Your task to perform on an android device: clear all cookies in the chrome app Image 0: 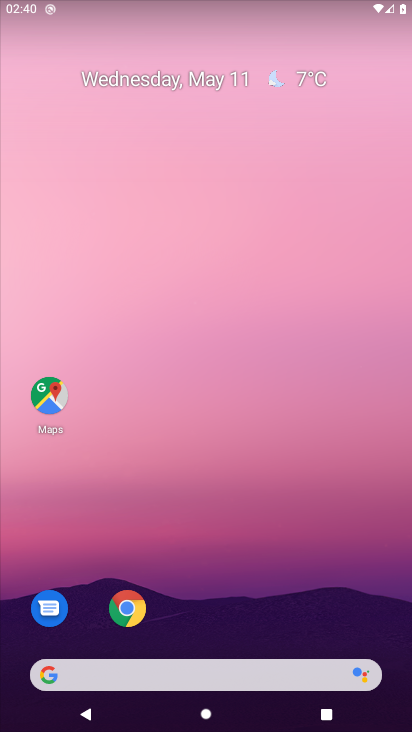
Step 0: click (117, 612)
Your task to perform on an android device: clear all cookies in the chrome app Image 1: 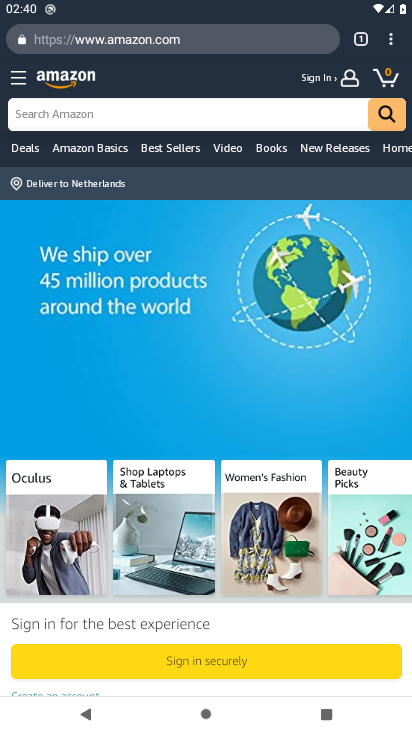
Step 1: click (395, 37)
Your task to perform on an android device: clear all cookies in the chrome app Image 2: 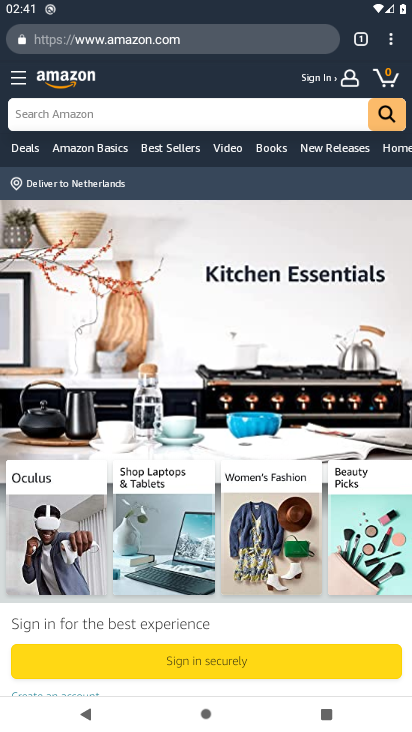
Step 2: click (394, 44)
Your task to perform on an android device: clear all cookies in the chrome app Image 3: 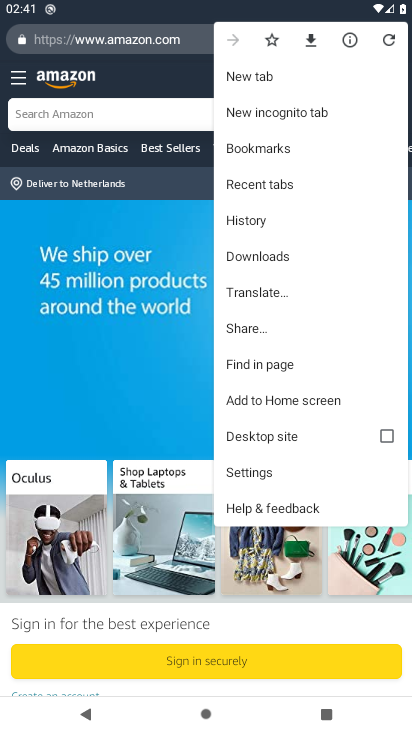
Step 3: click (269, 223)
Your task to perform on an android device: clear all cookies in the chrome app Image 4: 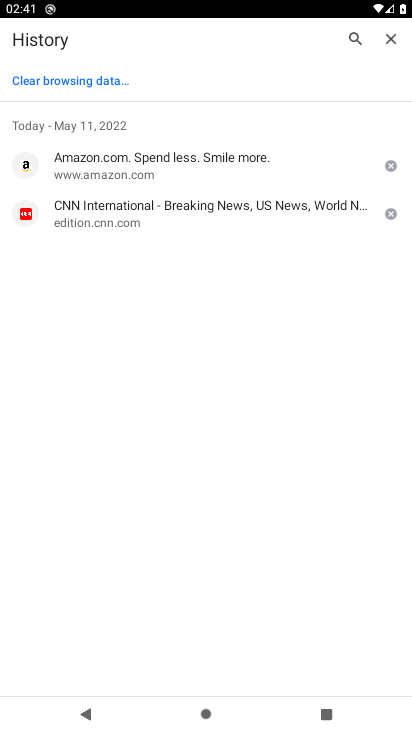
Step 4: click (43, 75)
Your task to perform on an android device: clear all cookies in the chrome app Image 5: 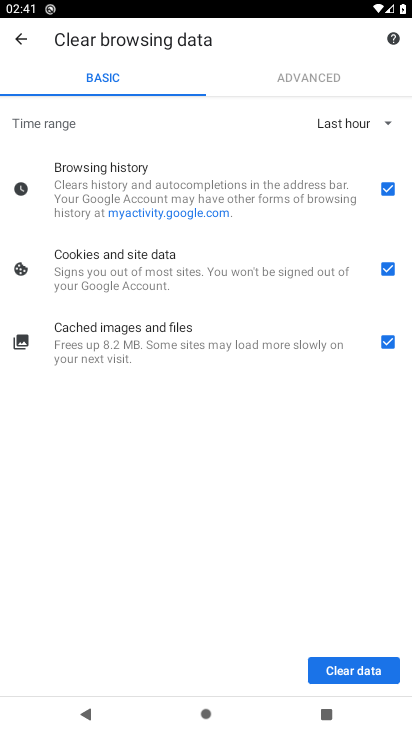
Step 5: click (384, 188)
Your task to perform on an android device: clear all cookies in the chrome app Image 6: 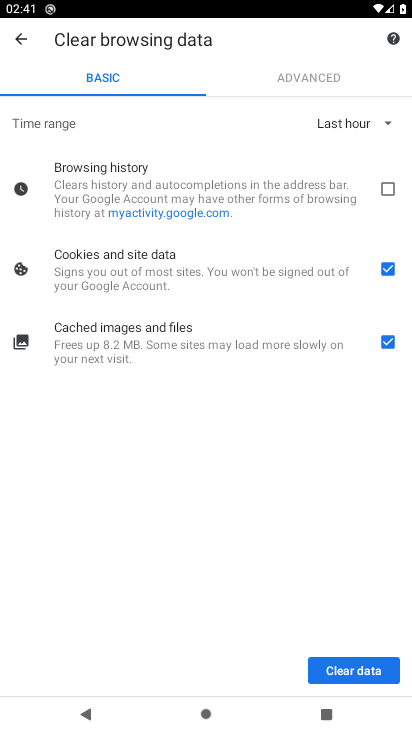
Step 6: click (386, 341)
Your task to perform on an android device: clear all cookies in the chrome app Image 7: 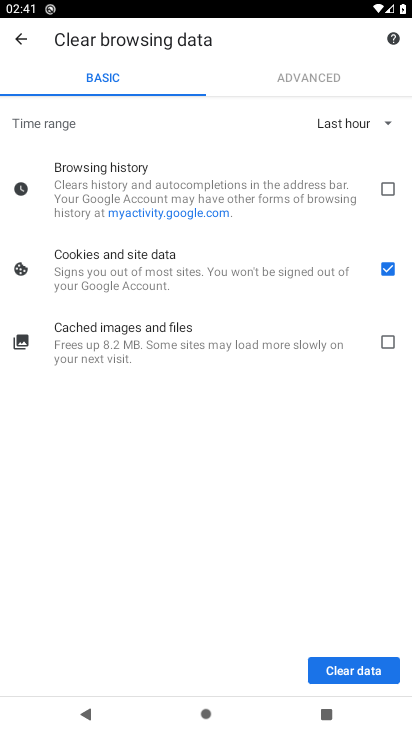
Step 7: click (366, 672)
Your task to perform on an android device: clear all cookies in the chrome app Image 8: 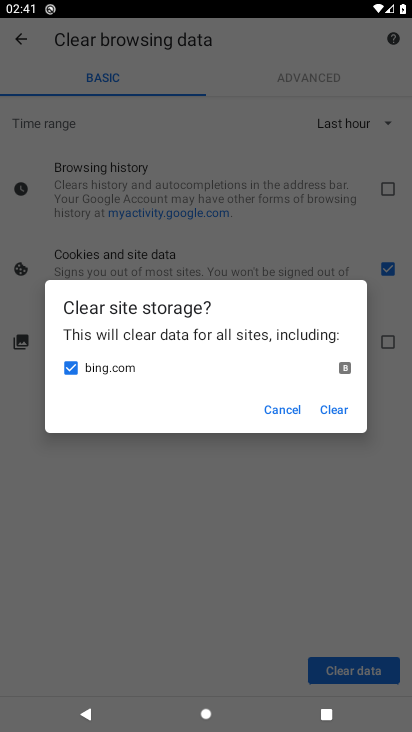
Step 8: click (324, 408)
Your task to perform on an android device: clear all cookies in the chrome app Image 9: 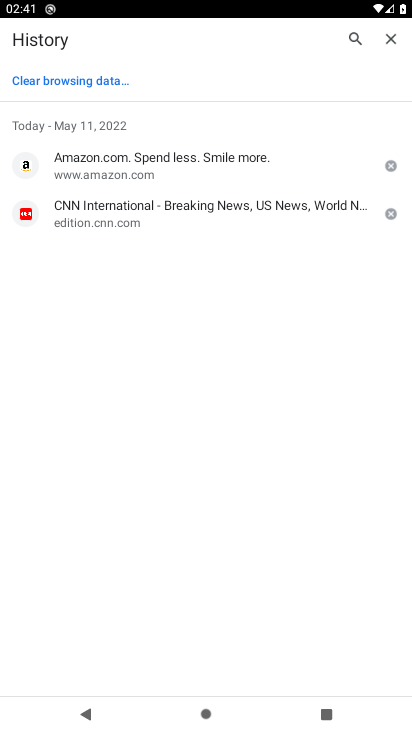
Step 9: task complete